Your task to perform on an android device: Search for Italian restaurants on Maps Image 0: 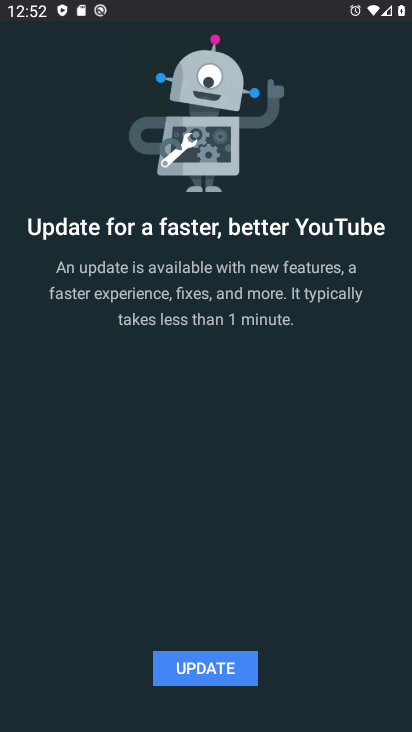
Step 0: press home button
Your task to perform on an android device: Search for Italian restaurants on Maps Image 1: 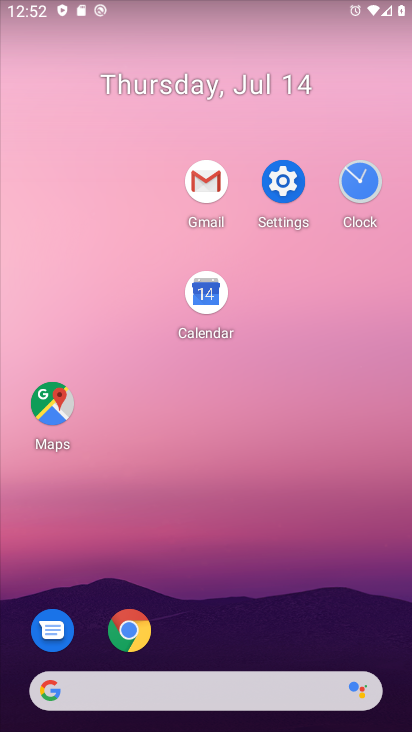
Step 1: click (67, 403)
Your task to perform on an android device: Search for Italian restaurants on Maps Image 2: 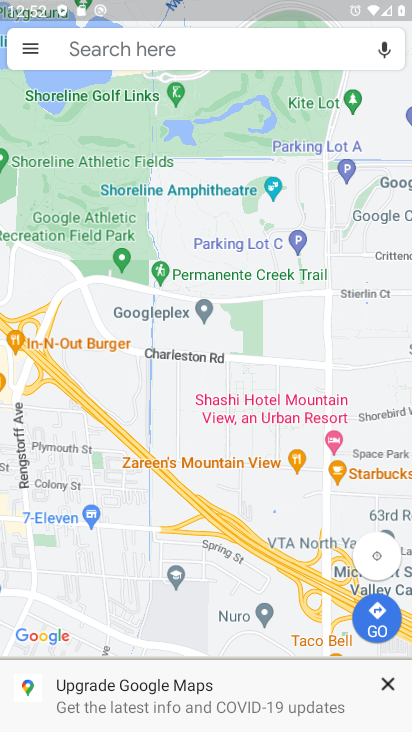
Step 2: click (223, 48)
Your task to perform on an android device: Search for Italian restaurants on Maps Image 3: 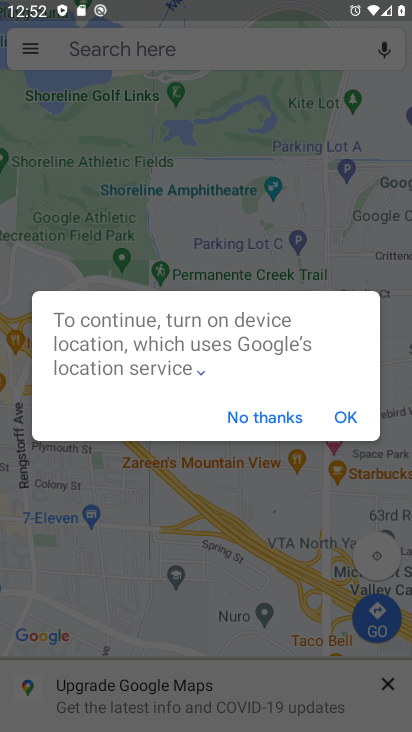
Step 3: click (357, 411)
Your task to perform on an android device: Search for Italian restaurants on Maps Image 4: 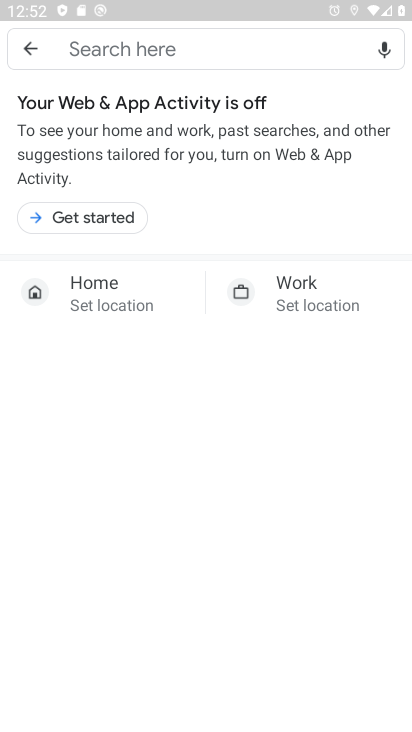
Step 4: type "italian restaurants"
Your task to perform on an android device: Search for Italian restaurants on Maps Image 5: 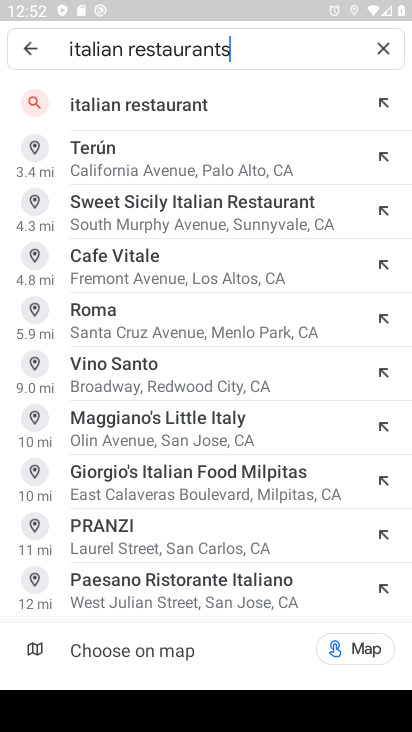
Step 5: task complete